Your task to perform on an android device: find snoozed emails in the gmail app Image 0: 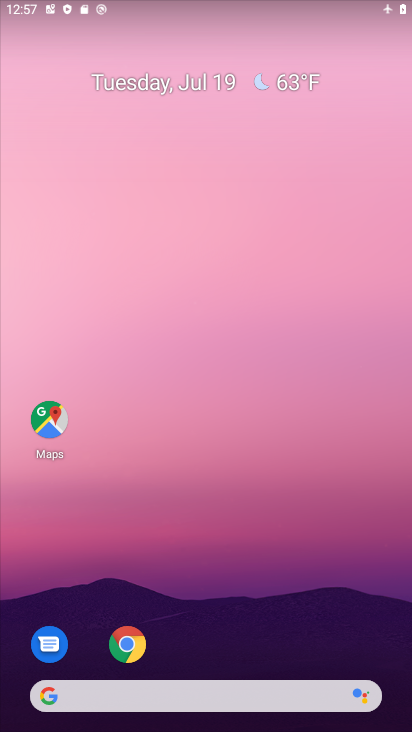
Step 0: drag from (230, 712) to (248, 149)
Your task to perform on an android device: find snoozed emails in the gmail app Image 1: 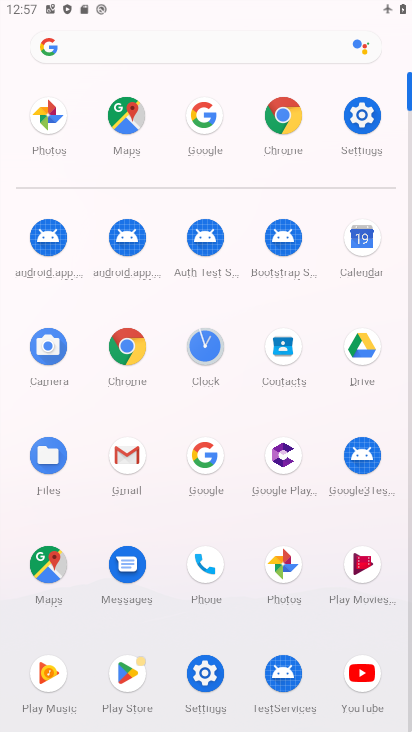
Step 1: click (124, 453)
Your task to perform on an android device: find snoozed emails in the gmail app Image 2: 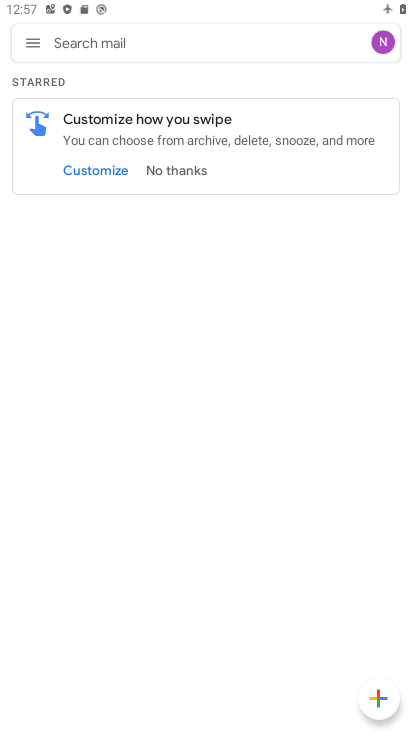
Step 2: click (29, 44)
Your task to perform on an android device: find snoozed emails in the gmail app Image 3: 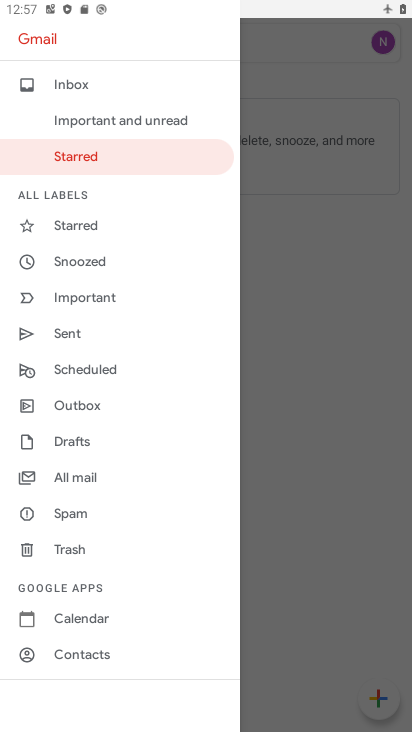
Step 3: click (71, 264)
Your task to perform on an android device: find snoozed emails in the gmail app Image 4: 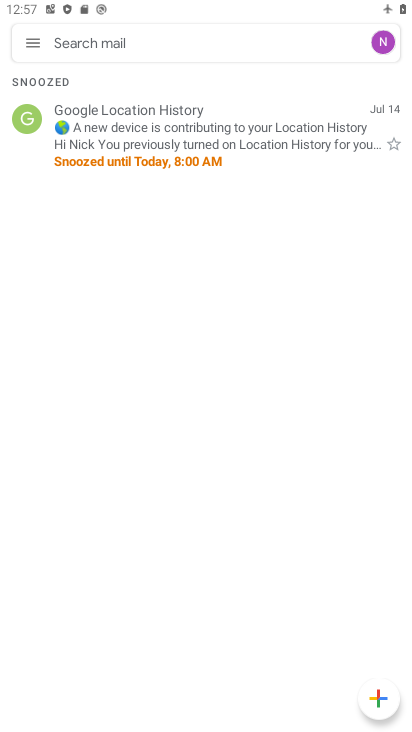
Step 4: task complete